Your task to perform on an android device: open chrome and create a bookmark for the current page Image 0: 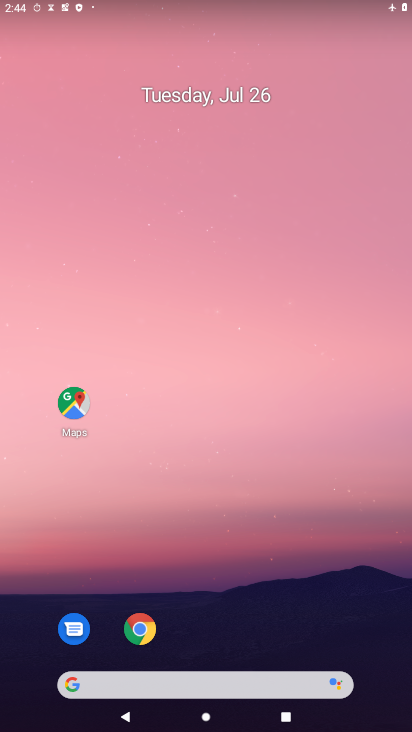
Step 0: drag from (329, 664) to (294, 0)
Your task to perform on an android device: open chrome and create a bookmark for the current page Image 1: 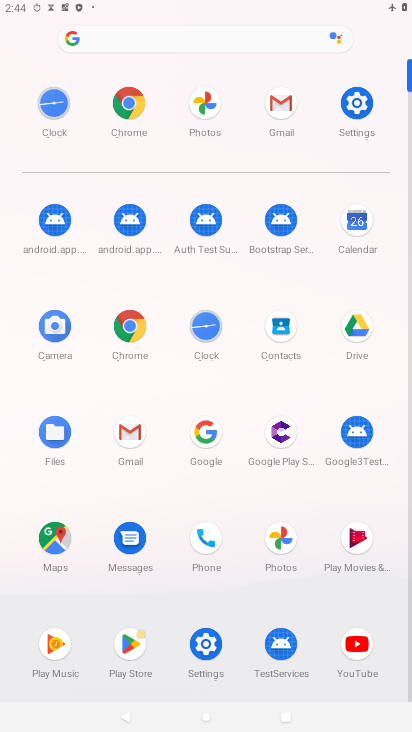
Step 1: click (127, 321)
Your task to perform on an android device: open chrome and create a bookmark for the current page Image 2: 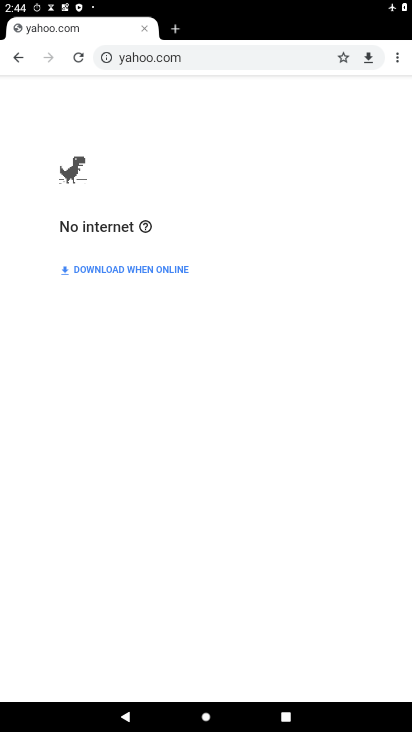
Step 2: click (395, 51)
Your task to perform on an android device: open chrome and create a bookmark for the current page Image 3: 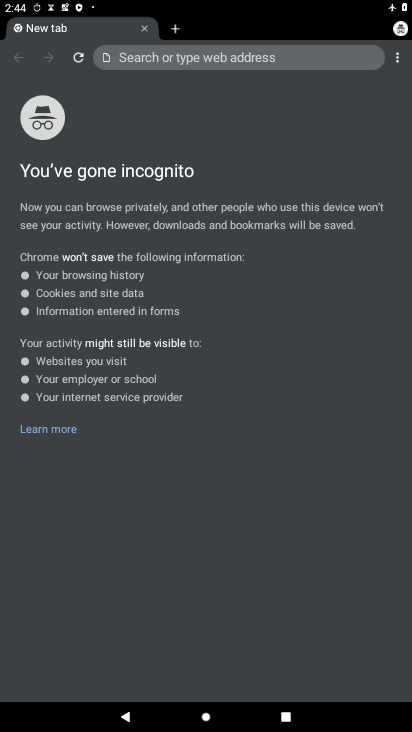
Step 3: press back button
Your task to perform on an android device: open chrome and create a bookmark for the current page Image 4: 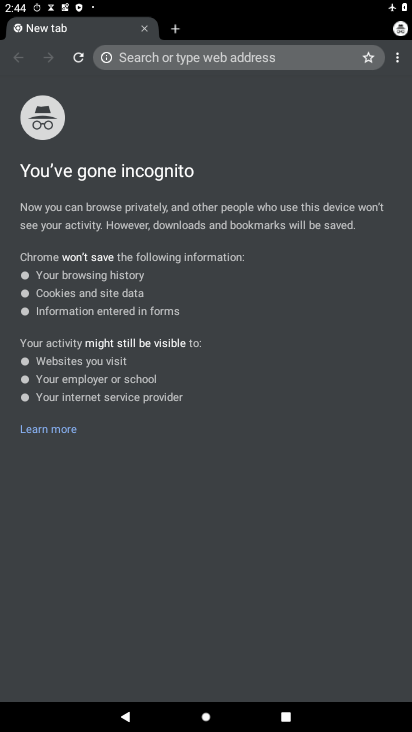
Step 4: click (368, 60)
Your task to perform on an android device: open chrome and create a bookmark for the current page Image 5: 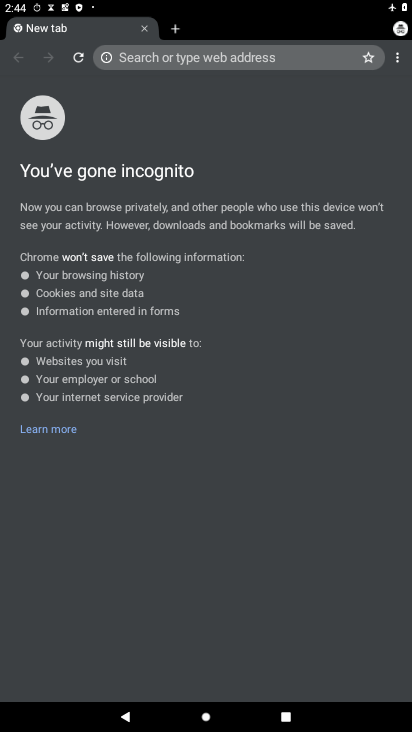
Step 5: click (373, 55)
Your task to perform on an android device: open chrome and create a bookmark for the current page Image 6: 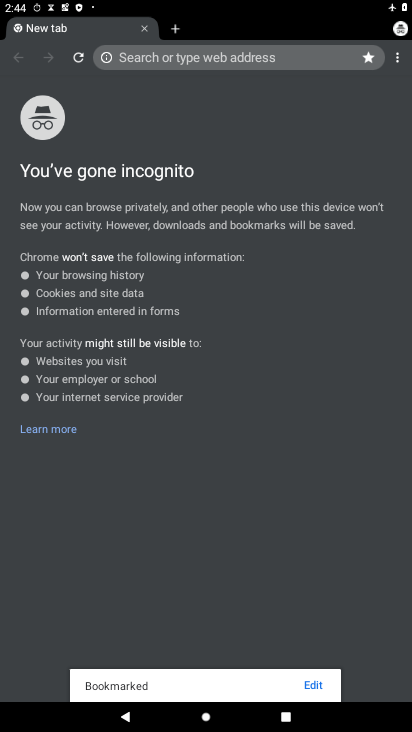
Step 6: task complete